Your task to perform on an android device: Set the phone to "Do not disturb". Image 0: 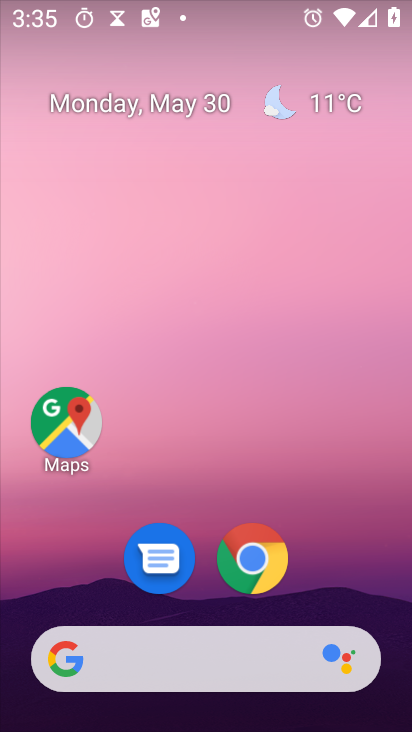
Step 0: drag from (134, 15) to (193, 513)
Your task to perform on an android device: Set the phone to "Do not disturb". Image 1: 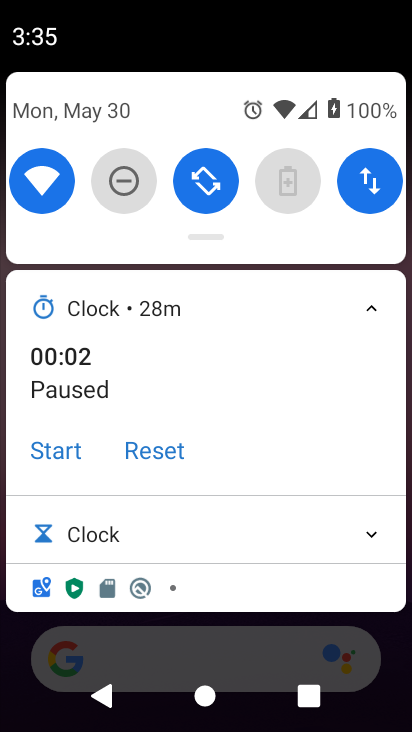
Step 1: click (120, 198)
Your task to perform on an android device: Set the phone to "Do not disturb". Image 2: 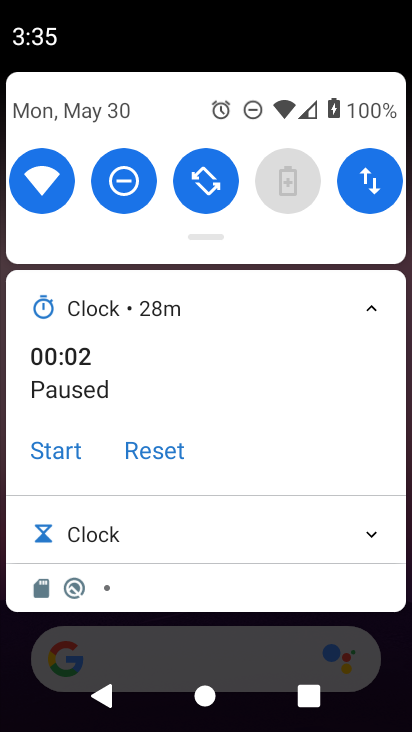
Step 2: task complete